Your task to perform on an android device: Go to eBay Image 0: 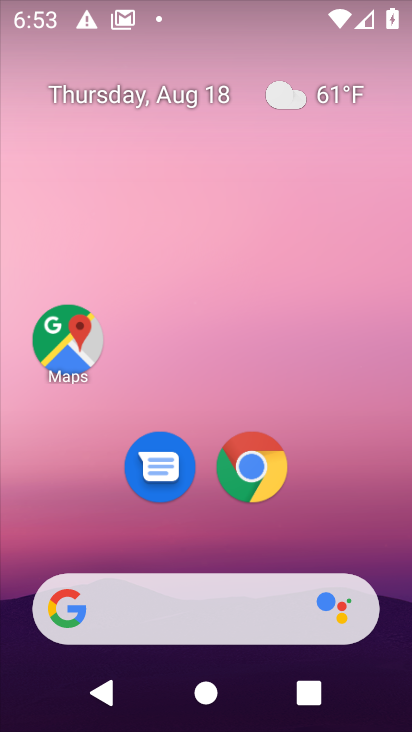
Step 0: click (256, 483)
Your task to perform on an android device: Go to eBay Image 1: 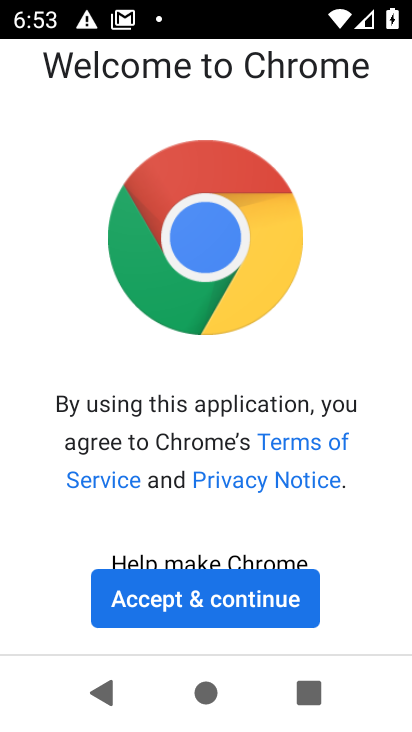
Step 1: click (191, 612)
Your task to perform on an android device: Go to eBay Image 2: 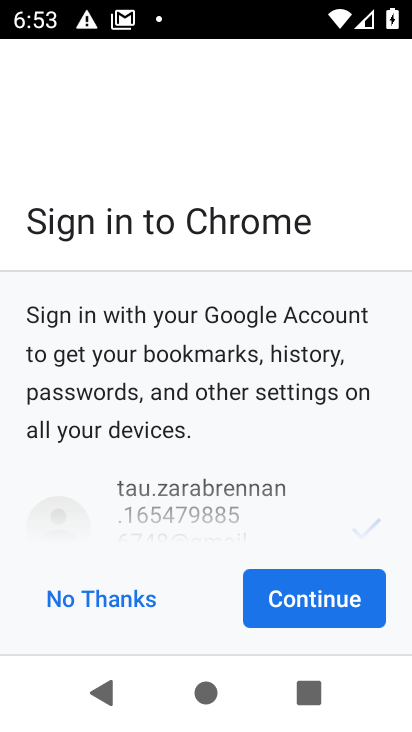
Step 2: click (143, 599)
Your task to perform on an android device: Go to eBay Image 3: 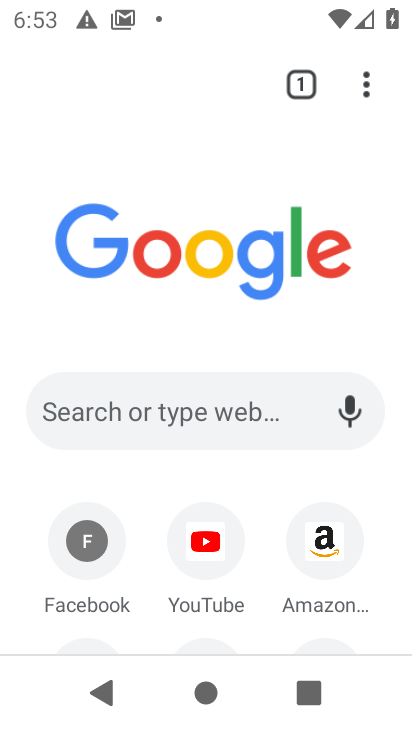
Step 3: task complete